Your task to perform on an android device: Go to ESPN.com Image 0: 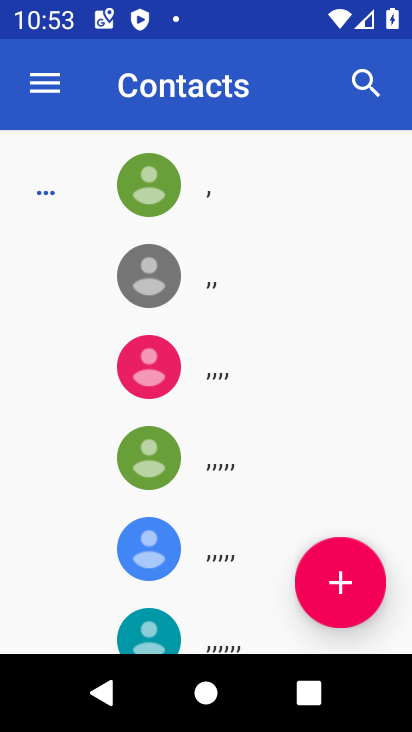
Step 0: drag from (202, 538) to (257, 217)
Your task to perform on an android device: Go to ESPN.com Image 1: 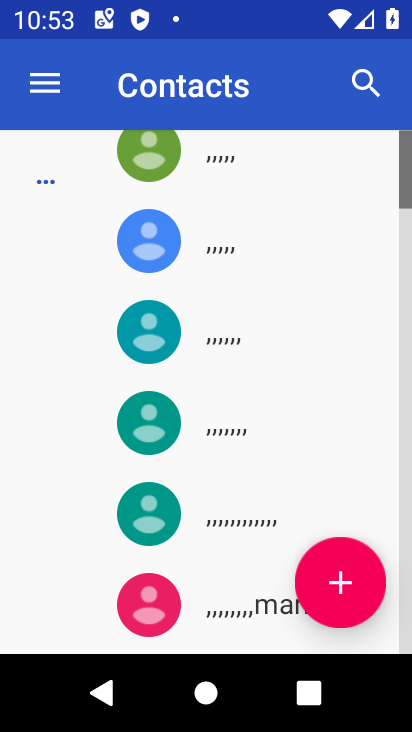
Step 1: press home button
Your task to perform on an android device: Go to ESPN.com Image 2: 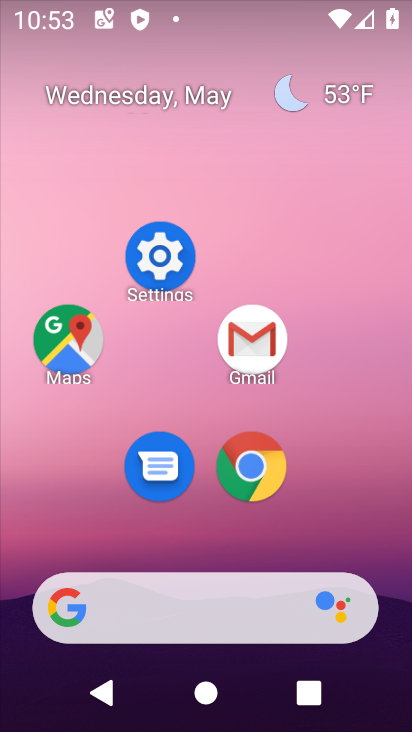
Step 2: drag from (238, 505) to (266, 273)
Your task to perform on an android device: Go to ESPN.com Image 3: 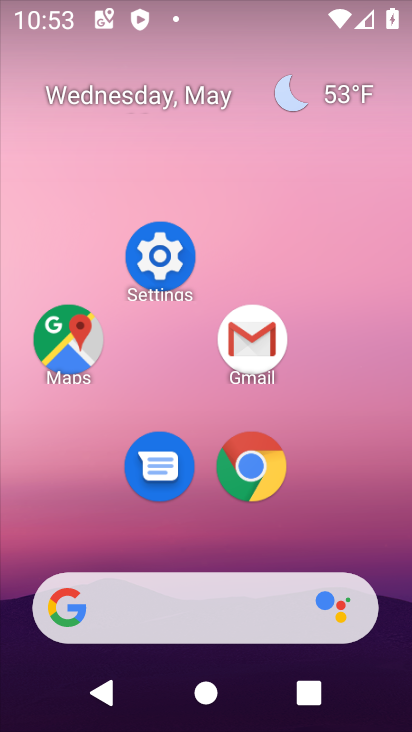
Step 3: drag from (186, 550) to (251, 234)
Your task to perform on an android device: Go to ESPN.com Image 4: 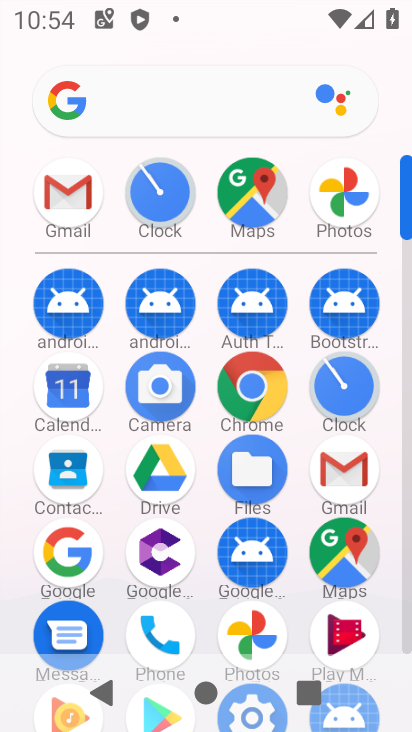
Step 4: click (196, 111)
Your task to perform on an android device: Go to ESPN.com Image 5: 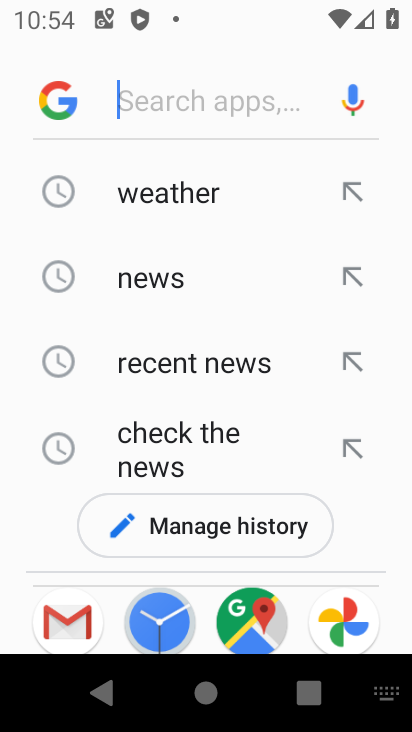
Step 5: type "espn"
Your task to perform on an android device: Go to ESPN.com Image 6: 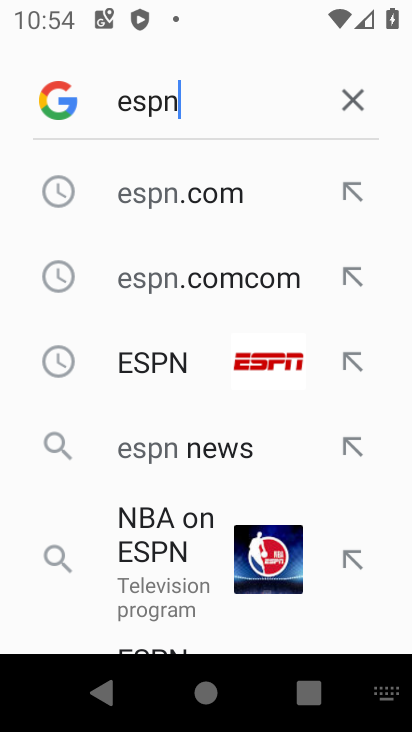
Step 6: click (194, 178)
Your task to perform on an android device: Go to ESPN.com Image 7: 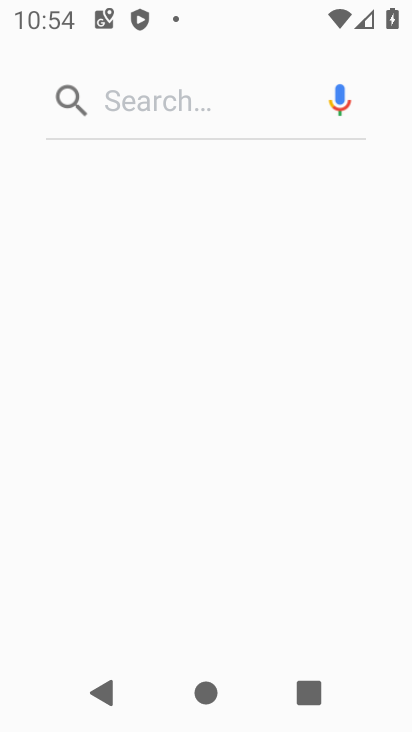
Step 7: task complete